Your task to perform on an android device: Go to calendar. Show me events next week Image 0: 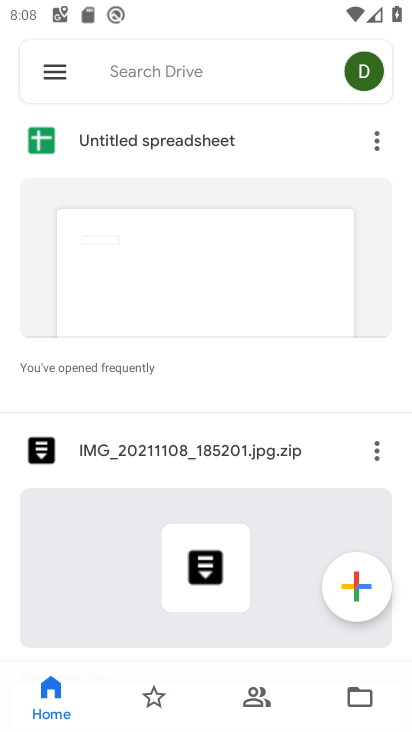
Step 0: press home button
Your task to perform on an android device: Go to calendar. Show me events next week Image 1: 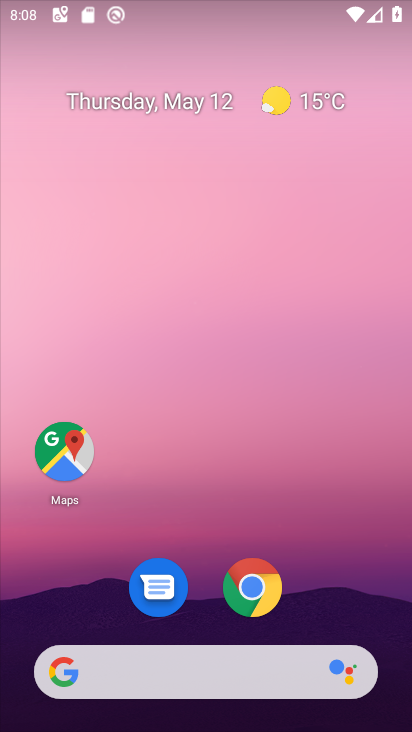
Step 1: drag from (360, 614) to (244, 192)
Your task to perform on an android device: Go to calendar. Show me events next week Image 2: 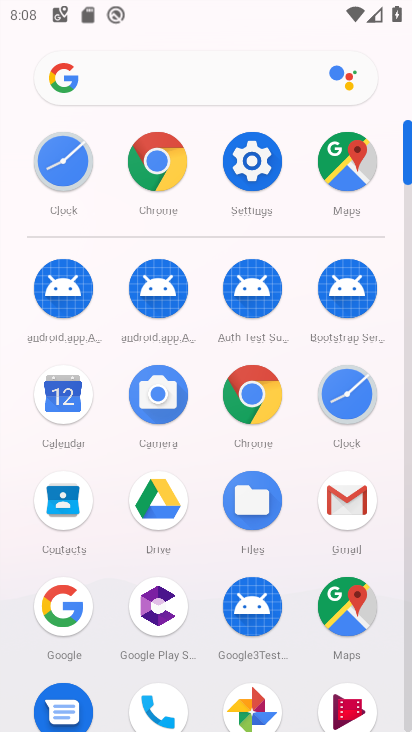
Step 2: click (64, 399)
Your task to perform on an android device: Go to calendar. Show me events next week Image 3: 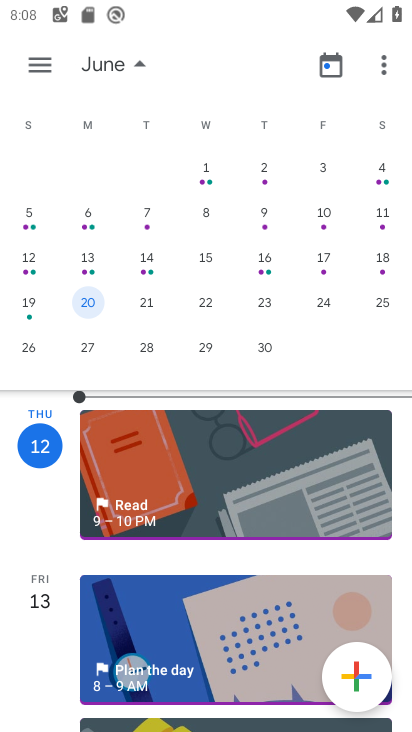
Step 3: click (46, 66)
Your task to perform on an android device: Go to calendar. Show me events next week Image 4: 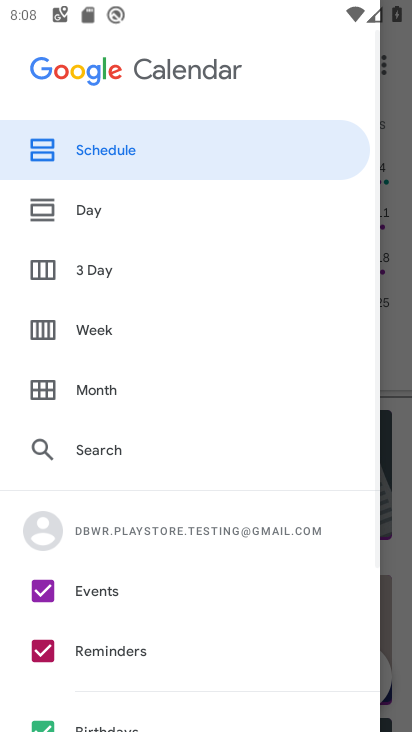
Step 4: click (155, 145)
Your task to perform on an android device: Go to calendar. Show me events next week Image 5: 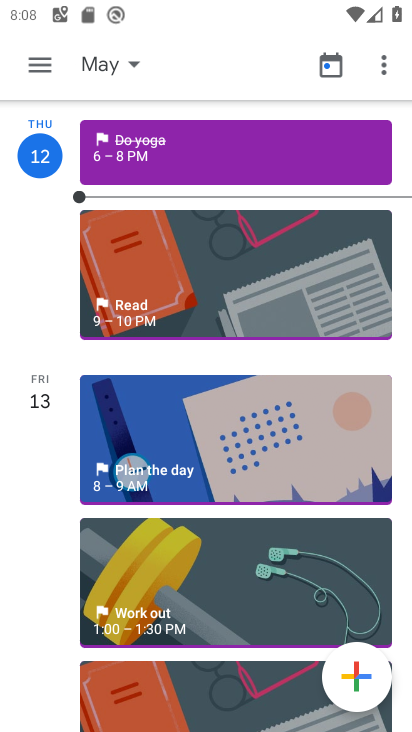
Step 5: task complete